Your task to perform on an android device: change alarm snooze length Image 0: 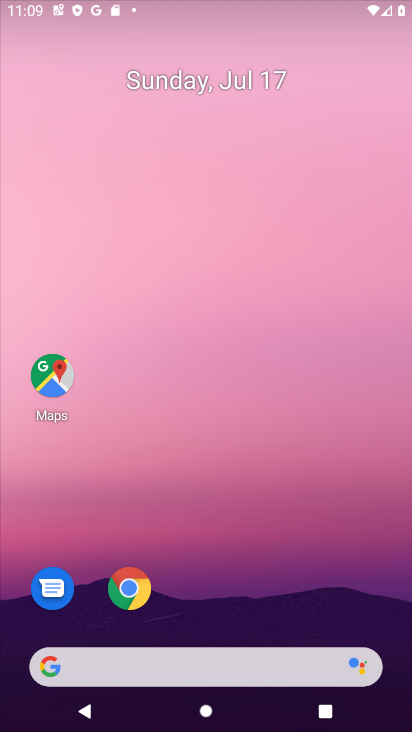
Step 0: press home button
Your task to perform on an android device: change alarm snooze length Image 1: 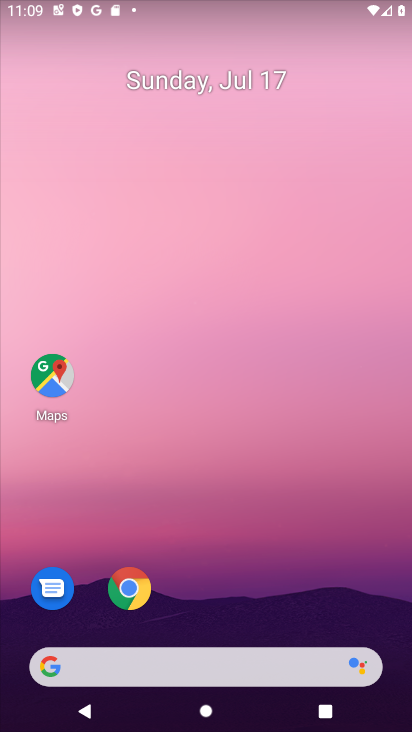
Step 1: drag from (228, 626) to (284, 96)
Your task to perform on an android device: change alarm snooze length Image 2: 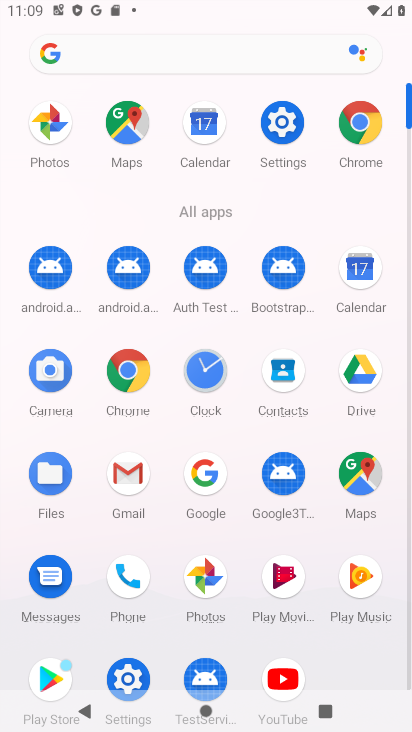
Step 2: click (201, 364)
Your task to perform on an android device: change alarm snooze length Image 3: 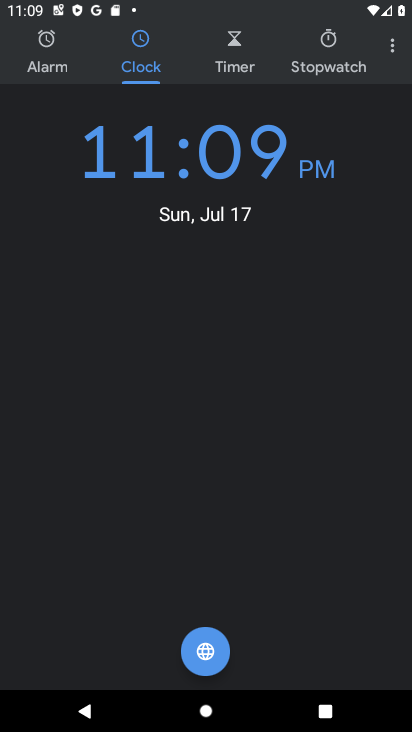
Step 3: click (397, 41)
Your task to perform on an android device: change alarm snooze length Image 4: 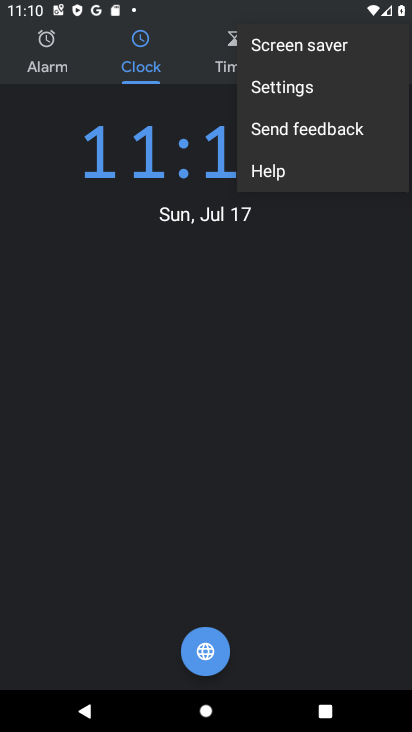
Step 4: click (308, 86)
Your task to perform on an android device: change alarm snooze length Image 5: 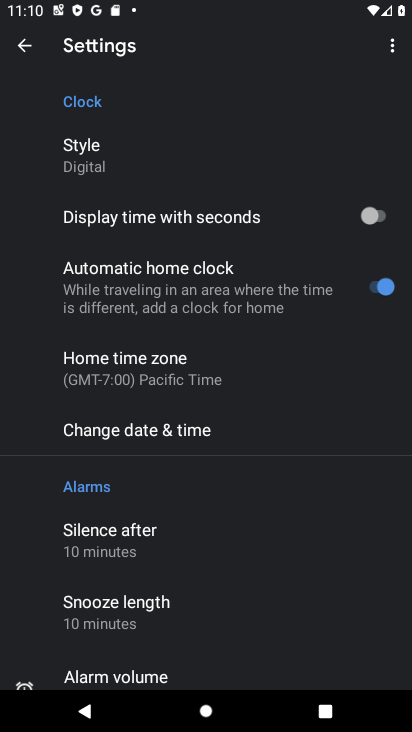
Step 5: click (180, 609)
Your task to perform on an android device: change alarm snooze length Image 6: 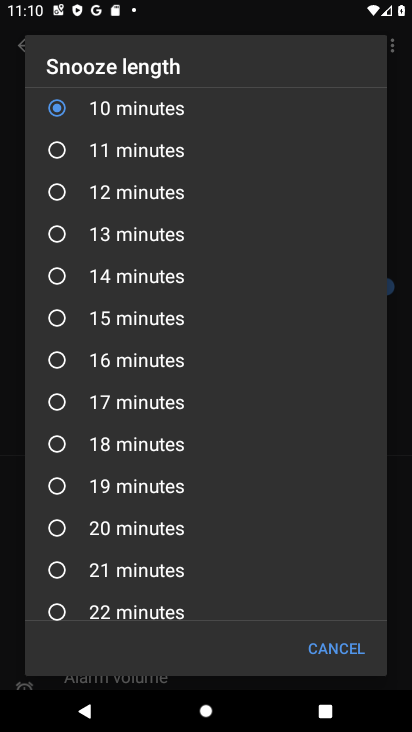
Step 6: drag from (100, 152) to (130, 549)
Your task to perform on an android device: change alarm snooze length Image 7: 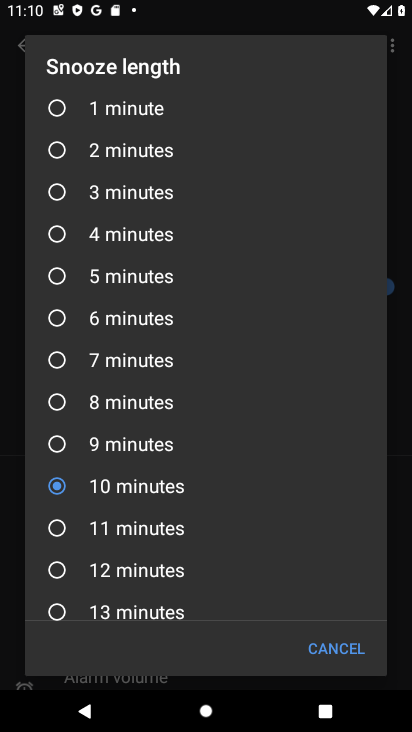
Step 7: click (59, 272)
Your task to perform on an android device: change alarm snooze length Image 8: 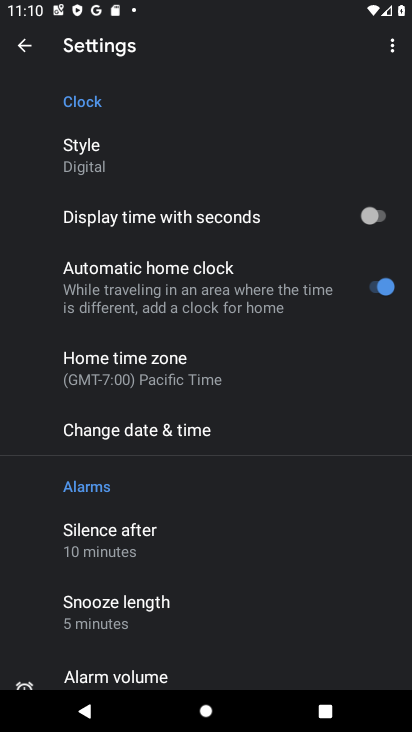
Step 8: task complete